Your task to perform on an android device: change text size in settings app Image 0: 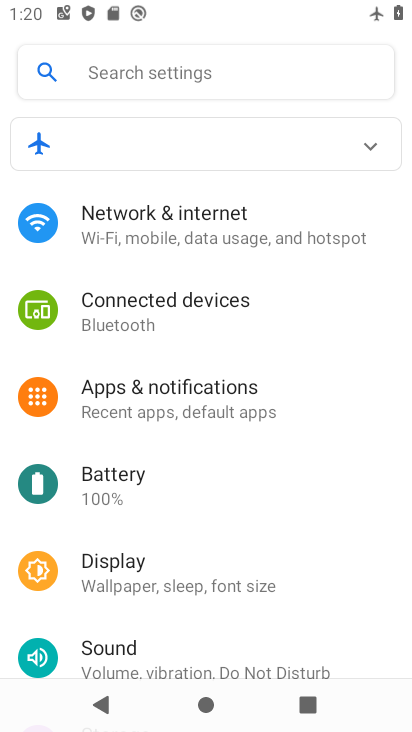
Step 0: drag from (166, 628) to (266, 217)
Your task to perform on an android device: change text size in settings app Image 1: 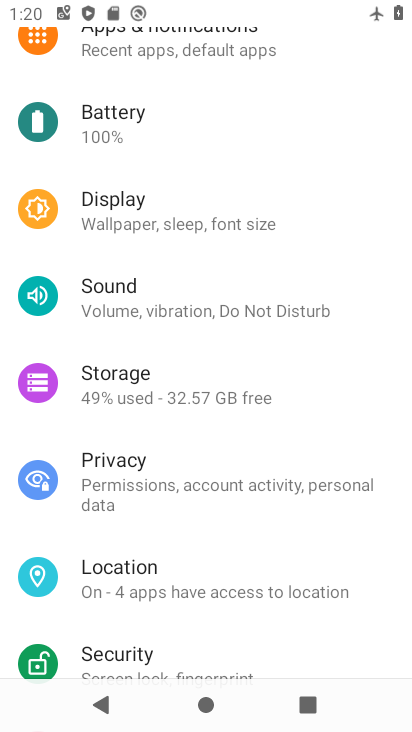
Step 1: drag from (188, 598) to (274, 212)
Your task to perform on an android device: change text size in settings app Image 2: 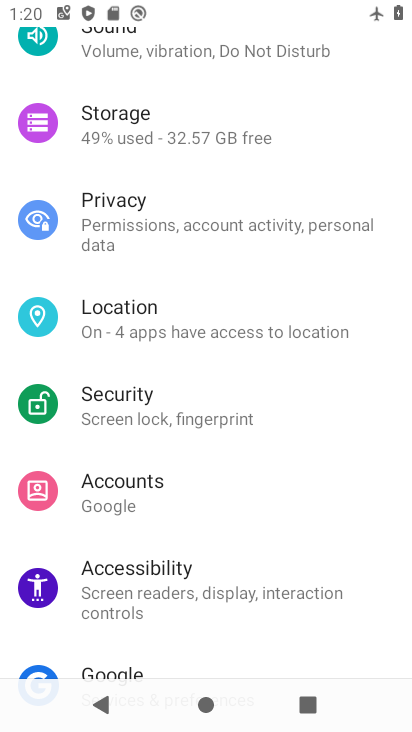
Step 2: drag from (185, 566) to (250, 345)
Your task to perform on an android device: change text size in settings app Image 3: 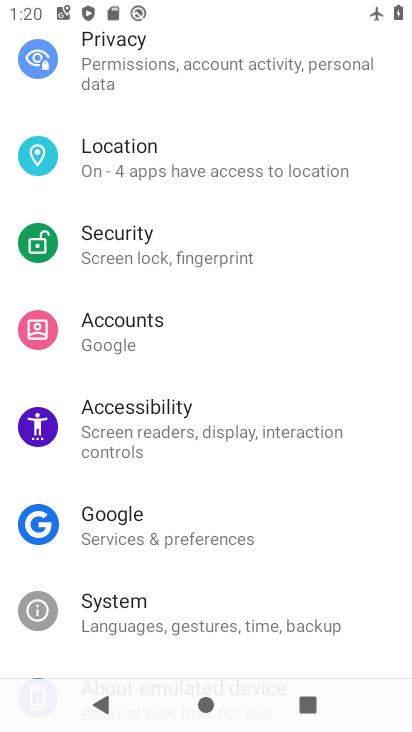
Step 3: click (169, 417)
Your task to perform on an android device: change text size in settings app Image 4: 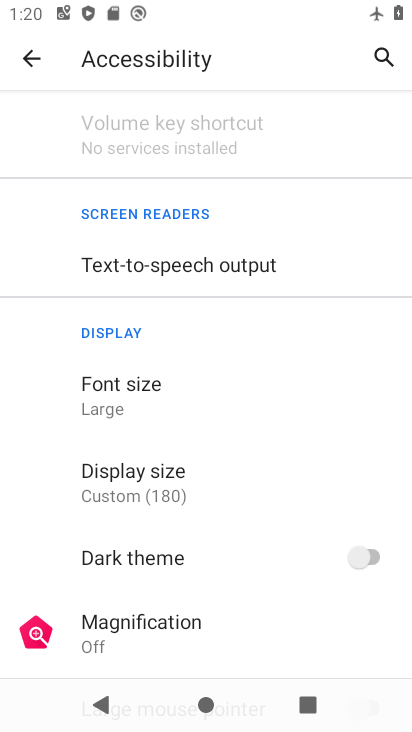
Step 4: click (169, 399)
Your task to perform on an android device: change text size in settings app Image 5: 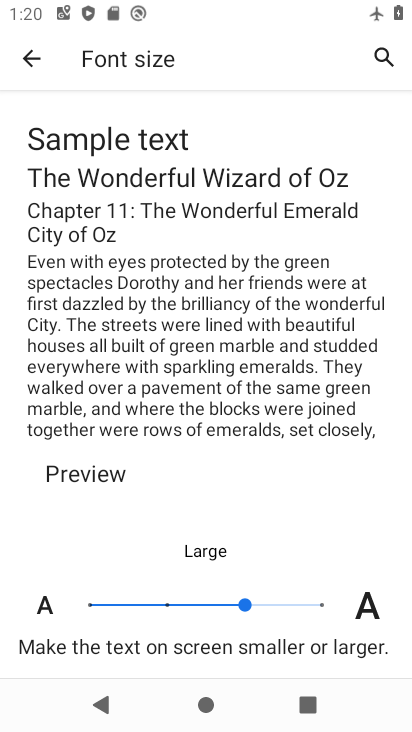
Step 5: click (167, 600)
Your task to perform on an android device: change text size in settings app Image 6: 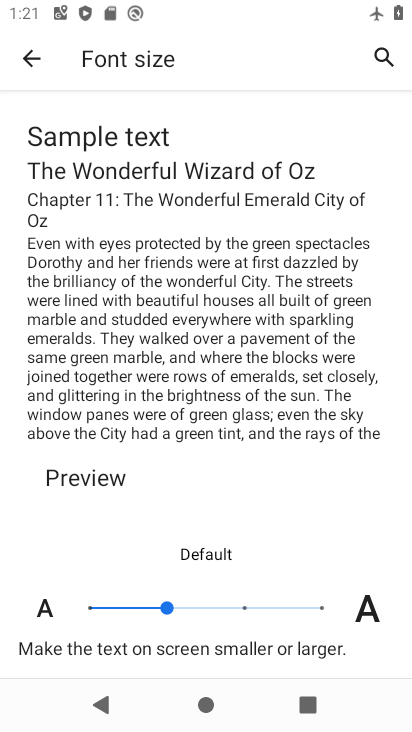
Step 6: task complete